Your task to perform on an android device: turn off location Image 0: 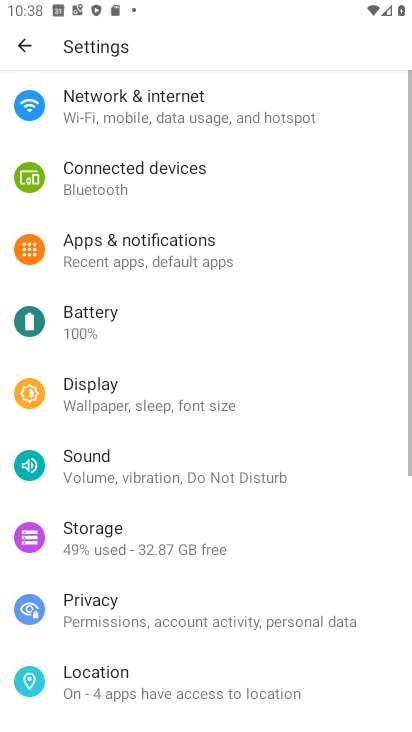
Step 0: press home button
Your task to perform on an android device: turn off location Image 1: 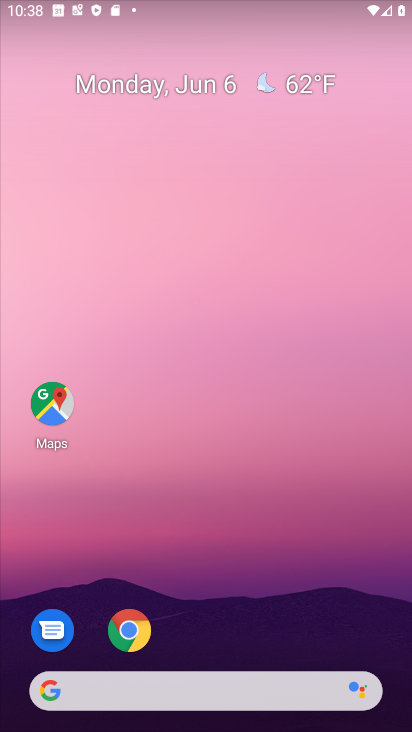
Step 1: drag from (388, 606) to (362, 137)
Your task to perform on an android device: turn off location Image 2: 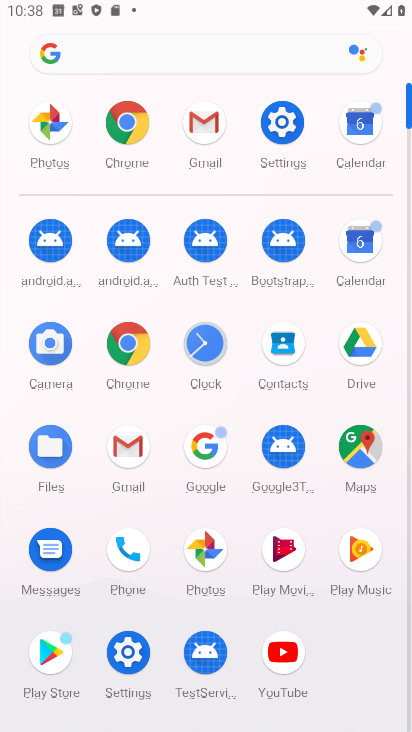
Step 2: click (121, 670)
Your task to perform on an android device: turn off location Image 3: 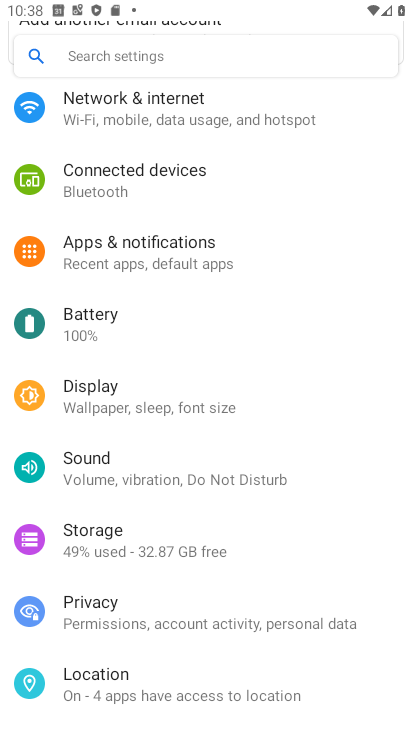
Step 3: click (163, 676)
Your task to perform on an android device: turn off location Image 4: 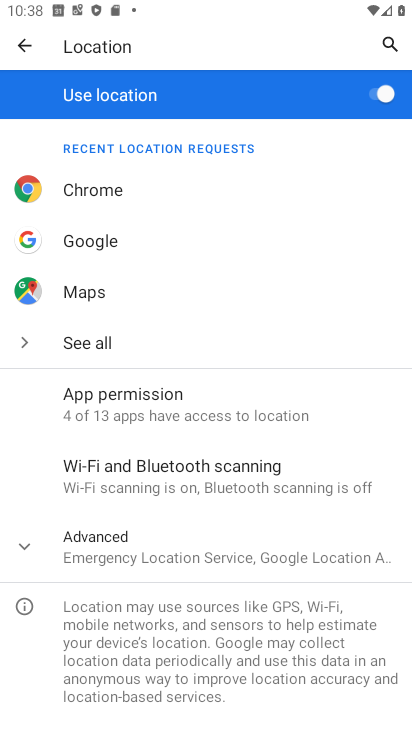
Step 4: click (376, 99)
Your task to perform on an android device: turn off location Image 5: 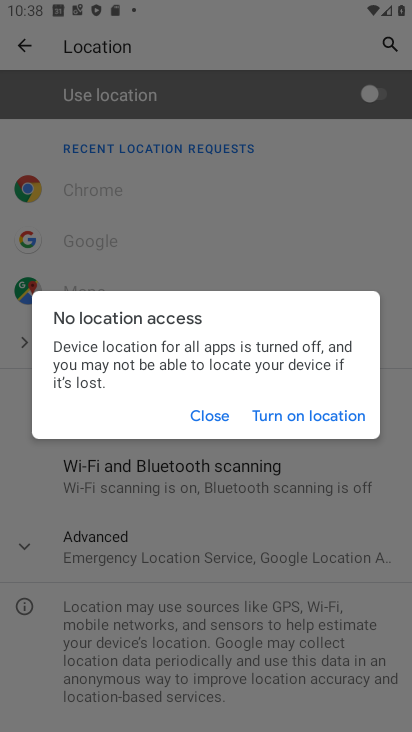
Step 5: task complete